Your task to perform on an android device: see creations saved in the google photos Image 0: 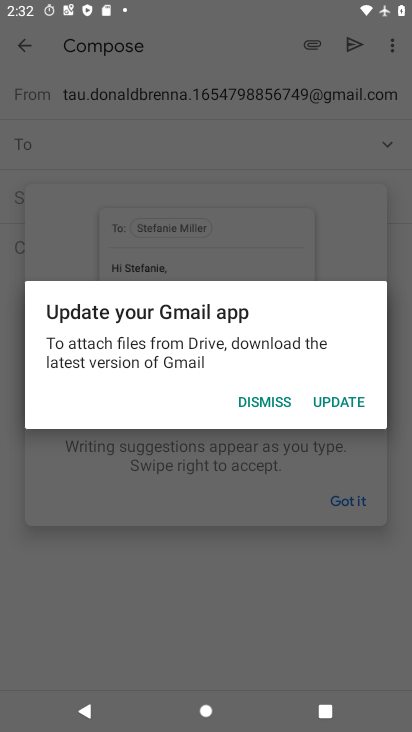
Step 0: press home button
Your task to perform on an android device: see creations saved in the google photos Image 1: 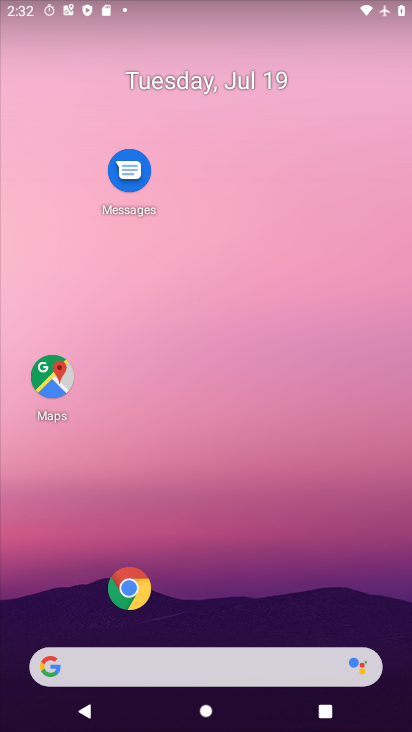
Step 1: drag from (66, 537) to (160, 235)
Your task to perform on an android device: see creations saved in the google photos Image 2: 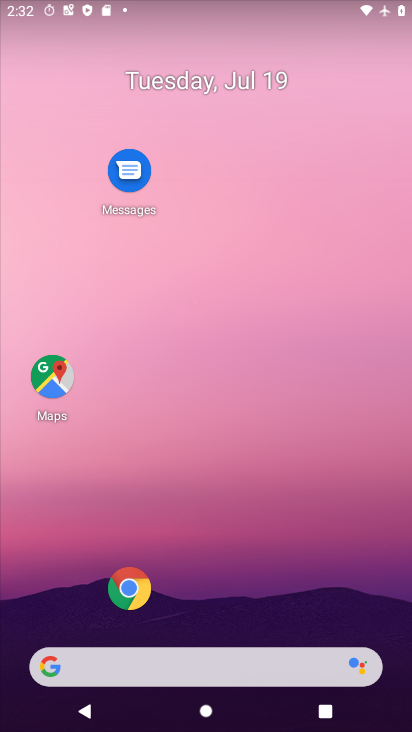
Step 2: drag from (100, 561) to (238, 43)
Your task to perform on an android device: see creations saved in the google photos Image 3: 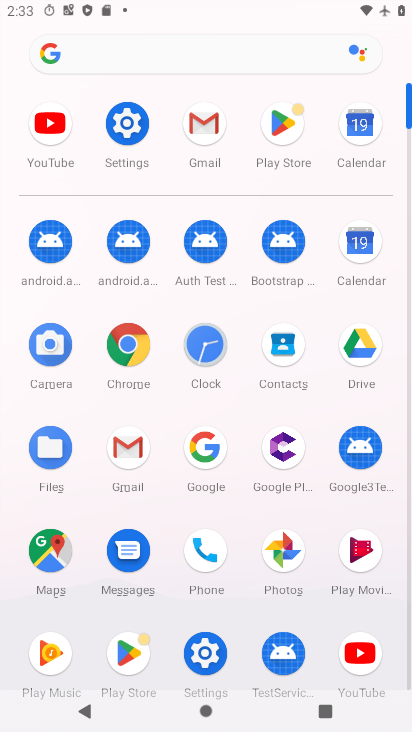
Step 3: click (282, 544)
Your task to perform on an android device: see creations saved in the google photos Image 4: 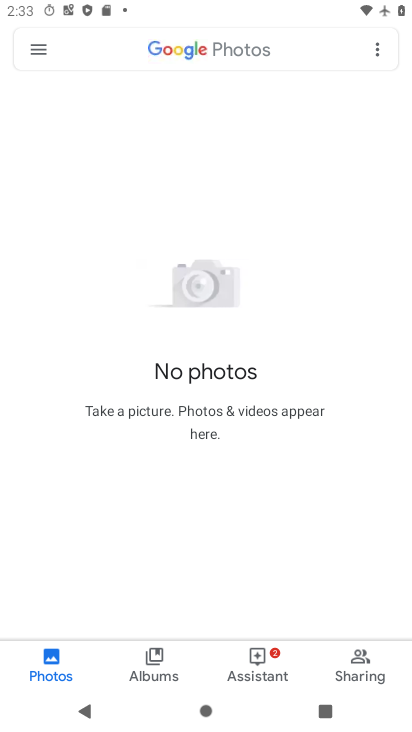
Step 4: click (381, 44)
Your task to perform on an android device: see creations saved in the google photos Image 5: 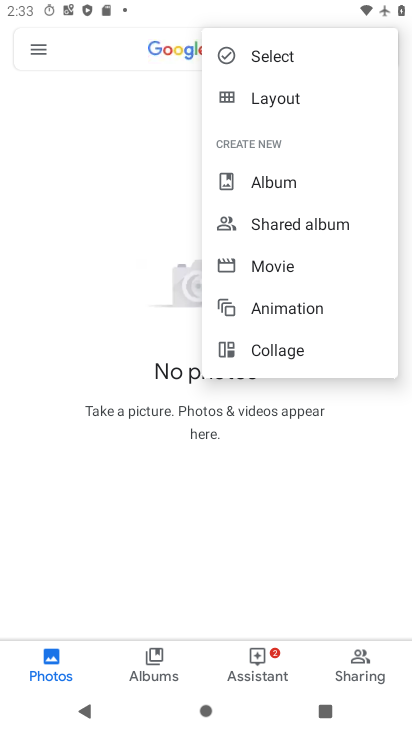
Step 5: click (349, 508)
Your task to perform on an android device: see creations saved in the google photos Image 6: 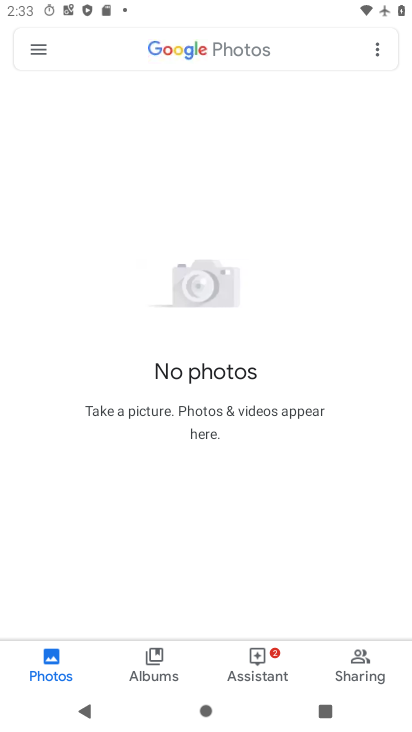
Step 6: task complete